Your task to perform on an android device: Go to calendar. Show me events next week Image 0: 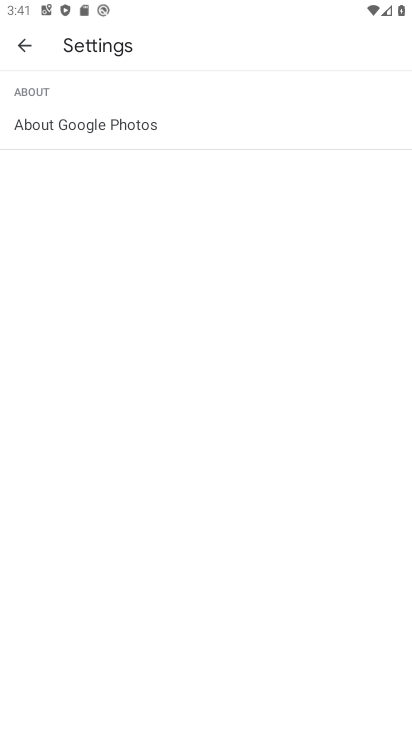
Step 0: press home button
Your task to perform on an android device: Go to calendar. Show me events next week Image 1: 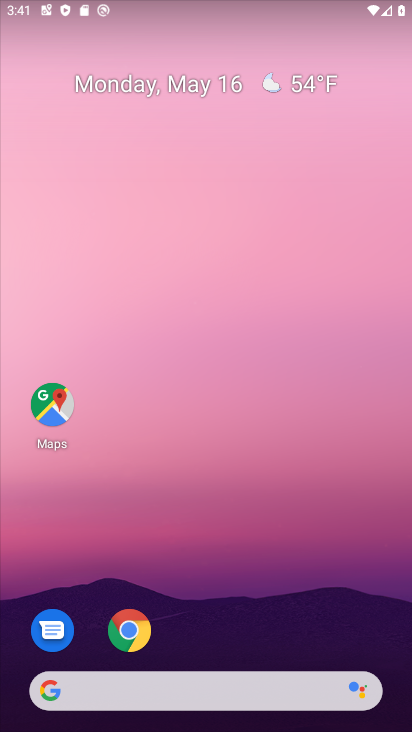
Step 1: drag from (247, 631) to (243, 121)
Your task to perform on an android device: Go to calendar. Show me events next week Image 2: 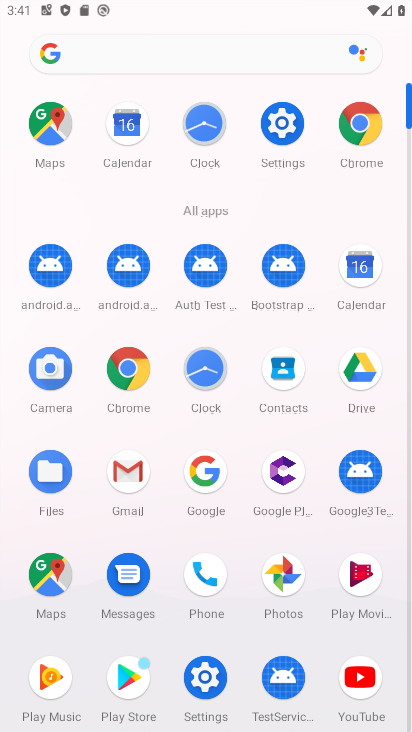
Step 2: click (373, 272)
Your task to perform on an android device: Go to calendar. Show me events next week Image 3: 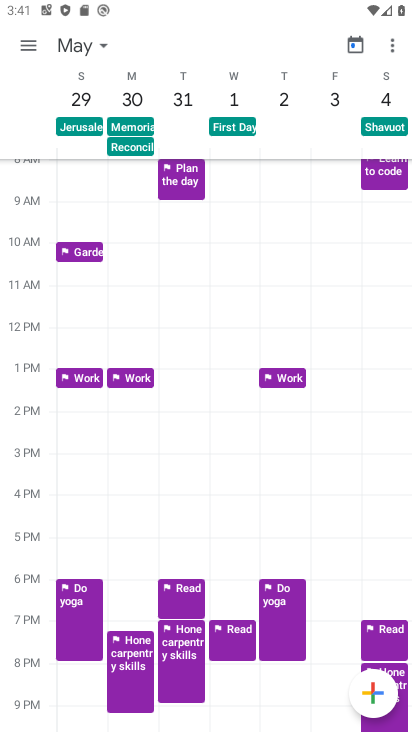
Step 3: click (17, 45)
Your task to perform on an android device: Go to calendar. Show me events next week Image 4: 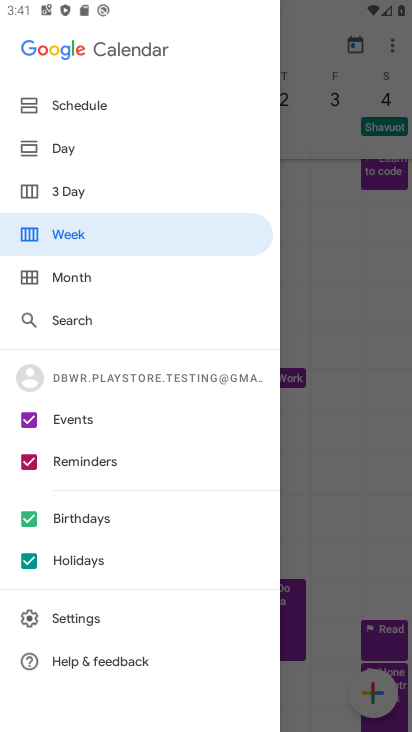
Step 4: click (30, 562)
Your task to perform on an android device: Go to calendar. Show me events next week Image 5: 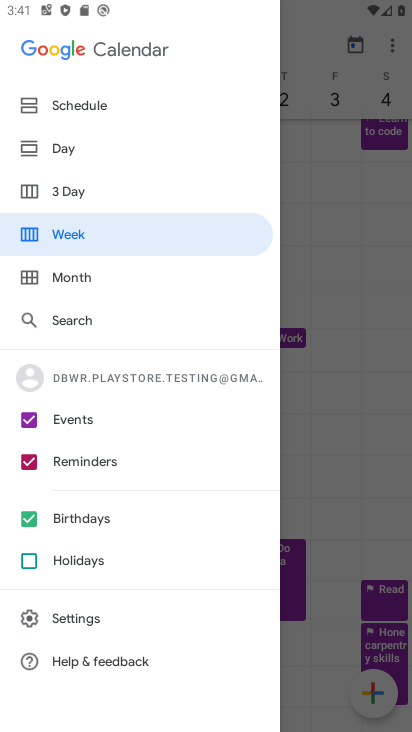
Step 5: click (20, 523)
Your task to perform on an android device: Go to calendar. Show me events next week Image 6: 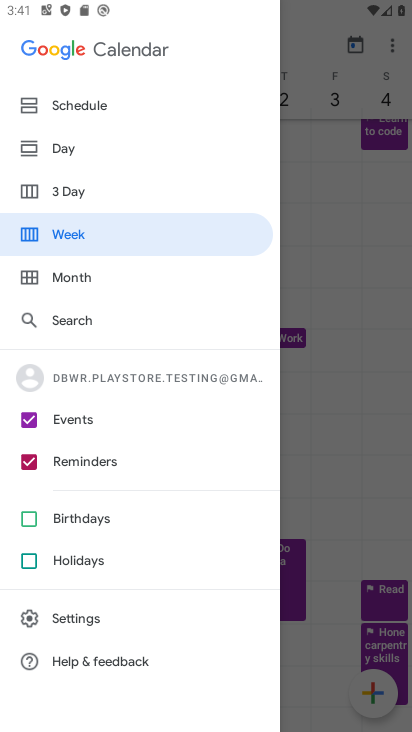
Step 6: click (33, 460)
Your task to perform on an android device: Go to calendar. Show me events next week Image 7: 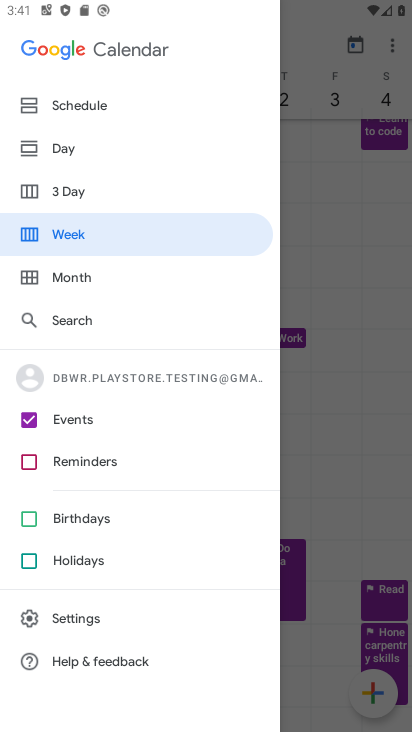
Step 7: click (349, 280)
Your task to perform on an android device: Go to calendar. Show me events next week Image 8: 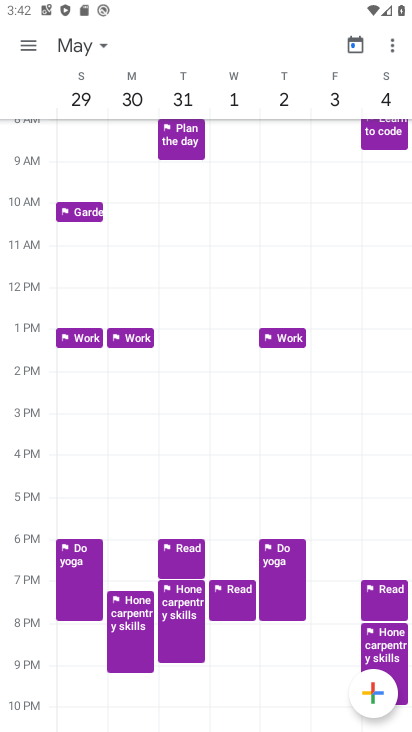
Step 8: click (106, 53)
Your task to perform on an android device: Go to calendar. Show me events next week Image 9: 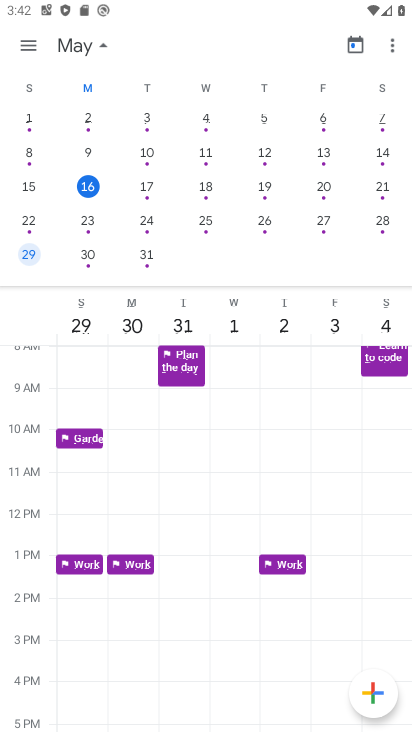
Step 9: click (91, 182)
Your task to perform on an android device: Go to calendar. Show me events next week Image 10: 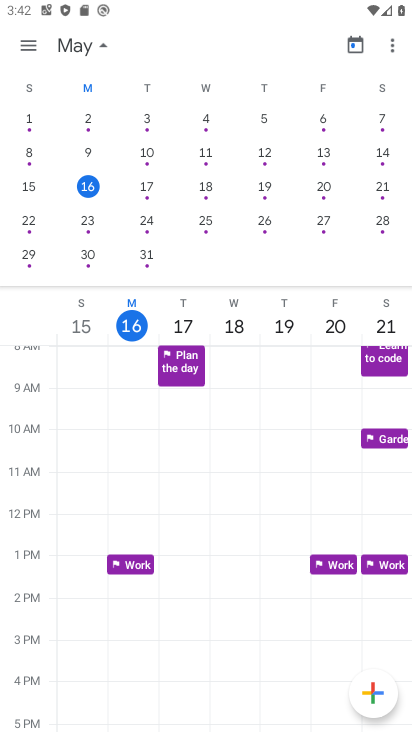
Step 10: click (90, 217)
Your task to perform on an android device: Go to calendar. Show me events next week Image 11: 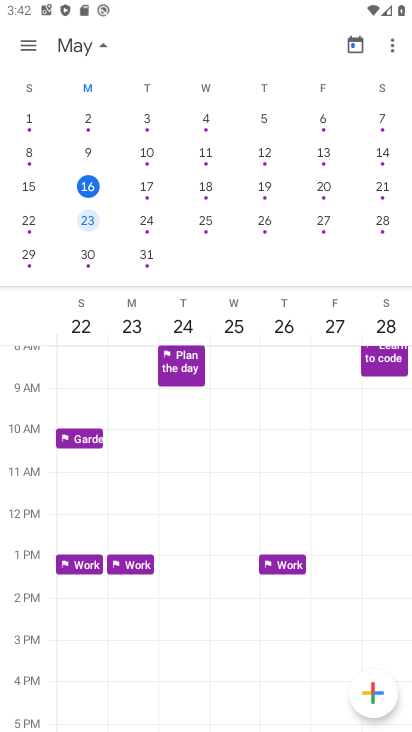
Step 11: click (86, 47)
Your task to perform on an android device: Go to calendar. Show me events next week Image 12: 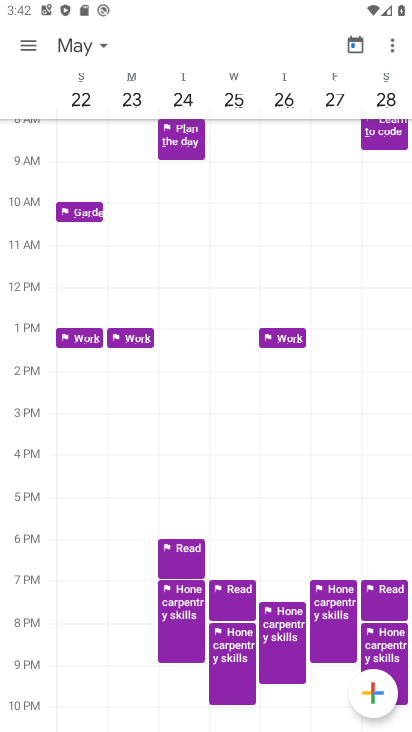
Step 12: task complete